Your task to perform on an android device: What's the price of the Samsung TV? Image 0: 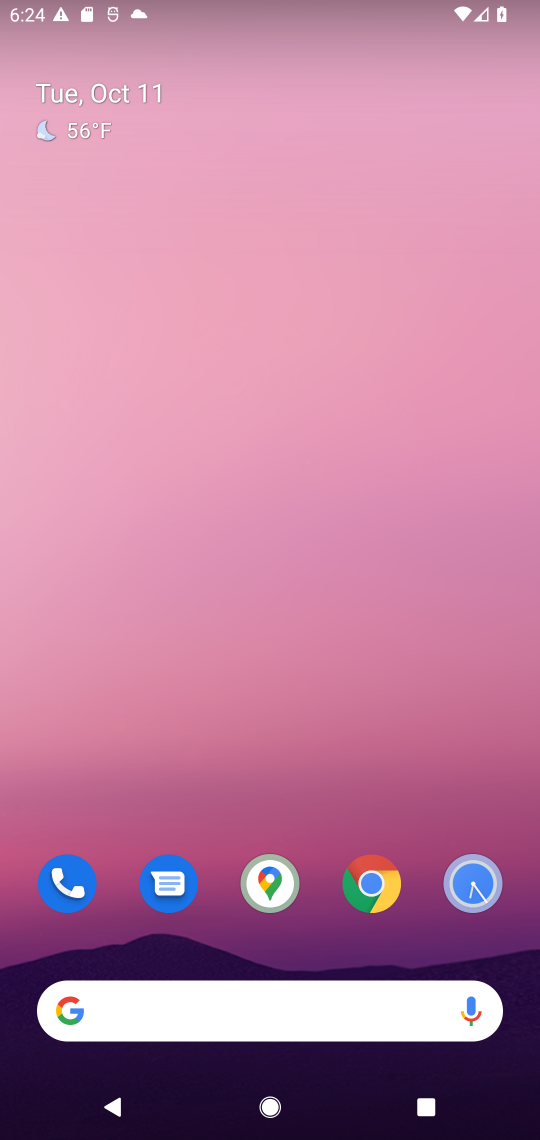
Step 0: drag from (310, 969) to (302, 8)
Your task to perform on an android device: What's the price of the Samsung TV? Image 1: 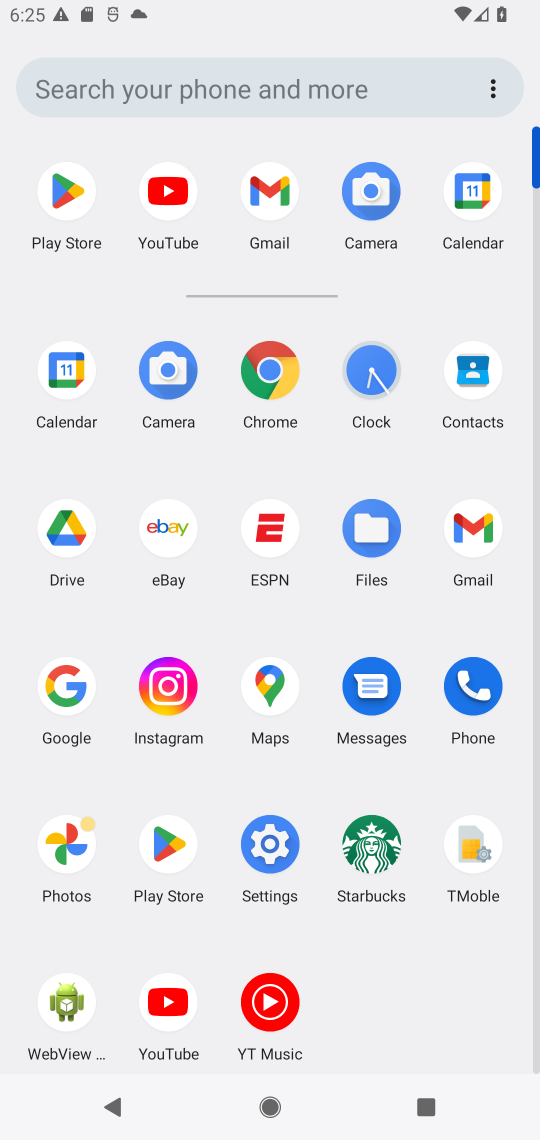
Step 1: click (280, 360)
Your task to perform on an android device: What's the price of the Samsung TV? Image 2: 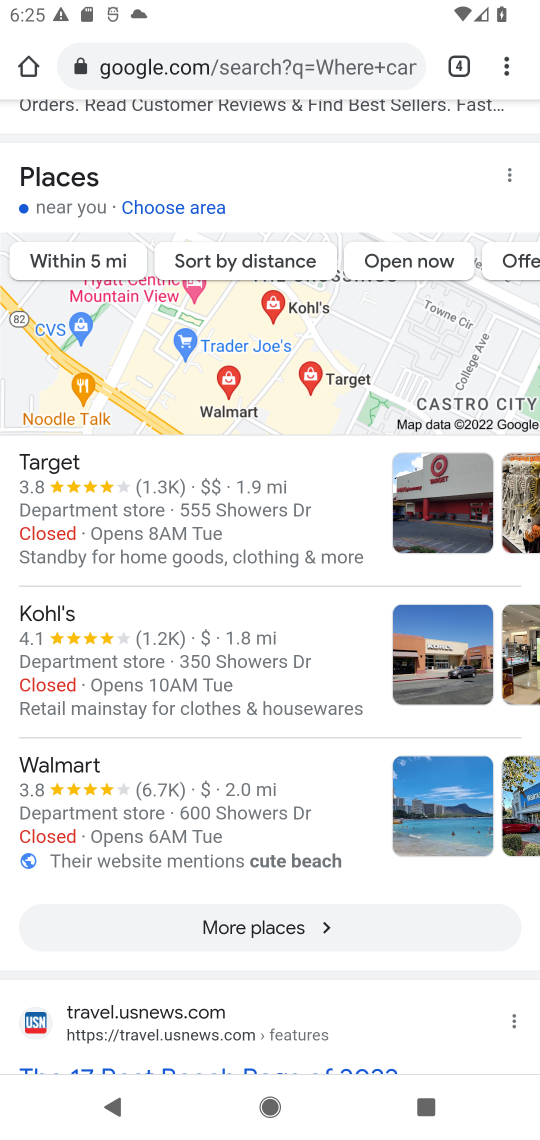
Step 2: click (262, 68)
Your task to perform on an android device: What's the price of the Samsung TV? Image 3: 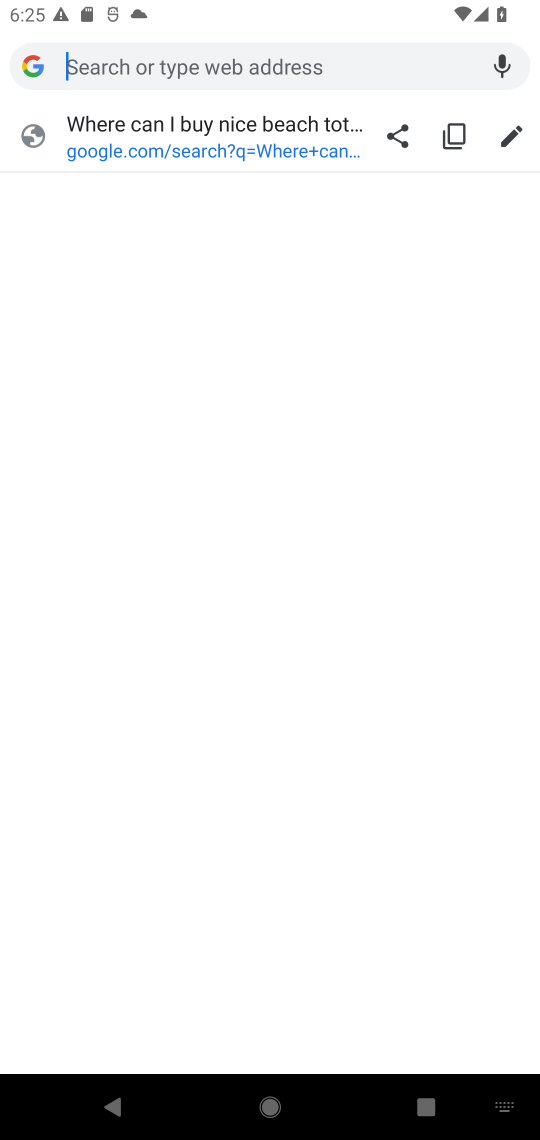
Step 3: type "What's the price of the Samsung TV?"
Your task to perform on an android device: What's the price of the Samsung TV? Image 4: 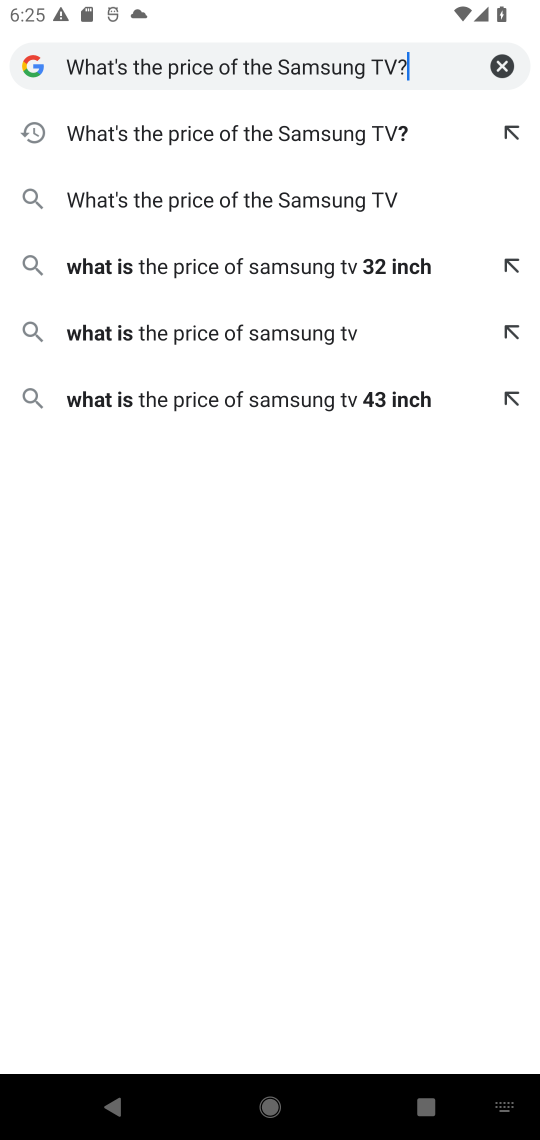
Step 4: press enter
Your task to perform on an android device: What's the price of the Samsung TV? Image 5: 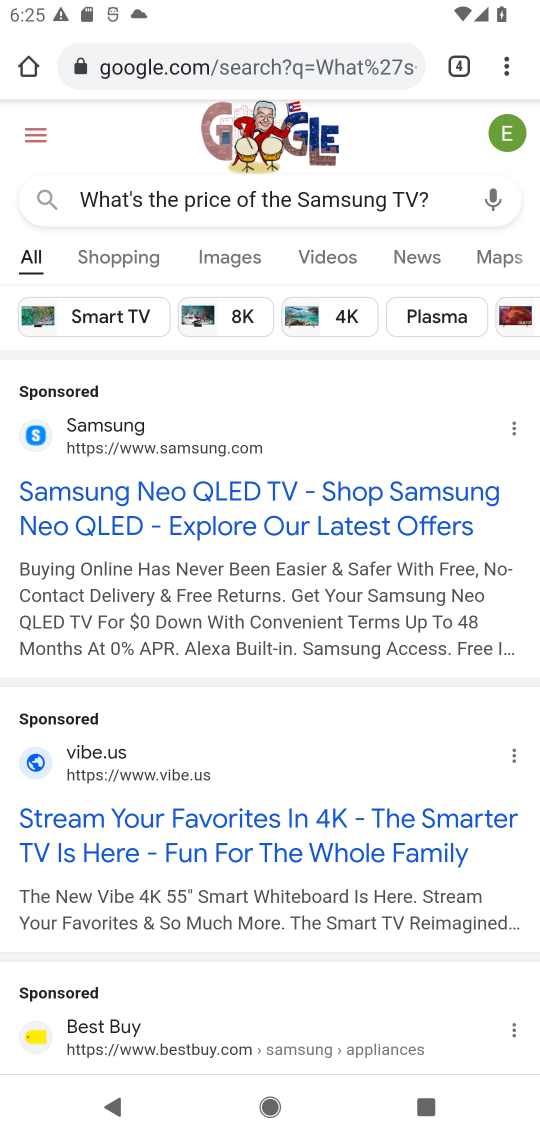
Step 5: drag from (280, 881) to (287, 543)
Your task to perform on an android device: What's the price of the Samsung TV? Image 6: 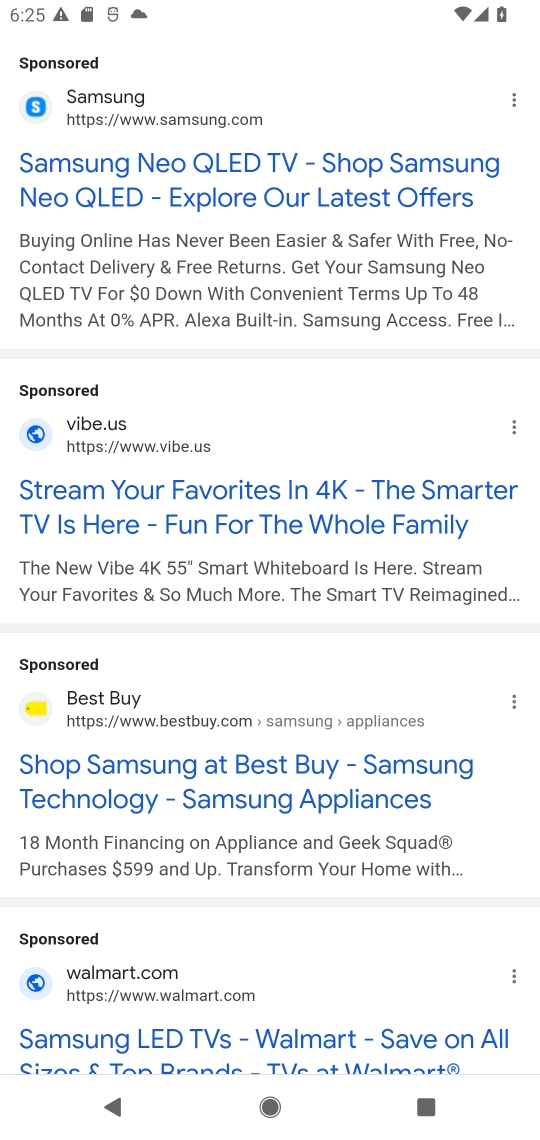
Step 6: click (227, 755)
Your task to perform on an android device: What's the price of the Samsung TV? Image 7: 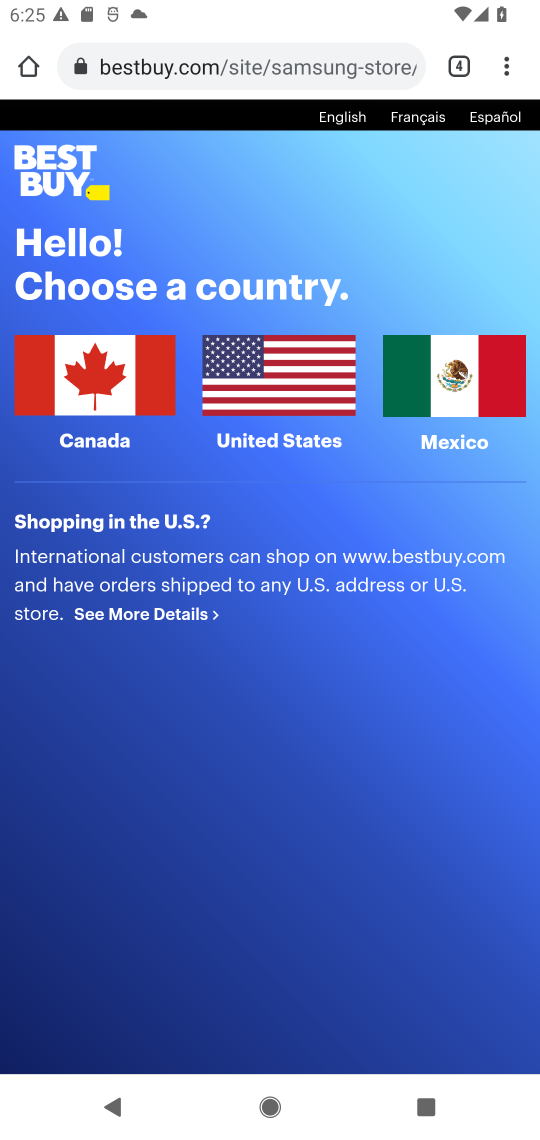
Step 7: task complete